Your task to perform on an android device: Clear the shopping cart on amazon.com. Add "dell xps" to the cart on amazon.com, then select checkout. Image 0: 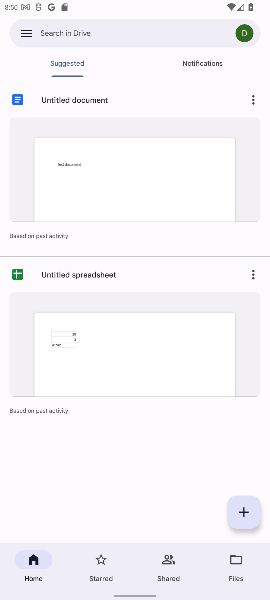
Step 0: press home button
Your task to perform on an android device: Clear the shopping cart on amazon.com. Add "dell xps" to the cart on amazon.com, then select checkout. Image 1: 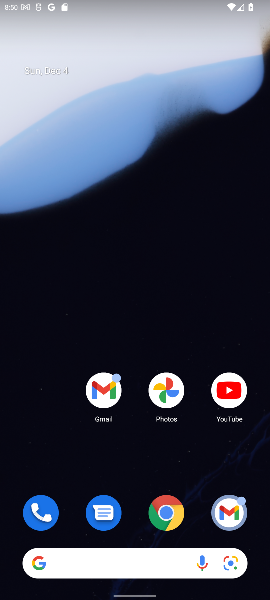
Step 1: click (167, 516)
Your task to perform on an android device: Clear the shopping cart on amazon.com. Add "dell xps" to the cart on amazon.com, then select checkout. Image 2: 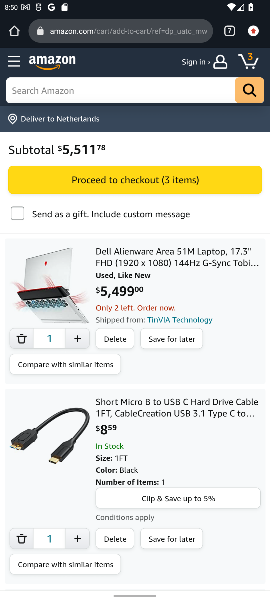
Step 2: click (116, 335)
Your task to perform on an android device: Clear the shopping cart on amazon.com. Add "dell xps" to the cart on amazon.com, then select checkout. Image 3: 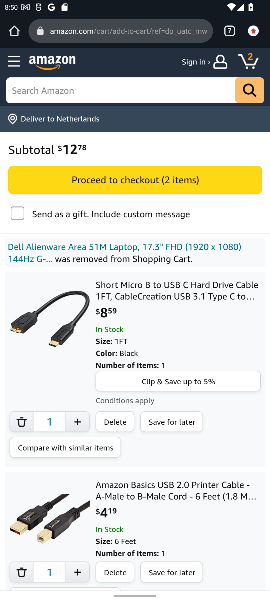
Step 3: click (117, 416)
Your task to perform on an android device: Clear the shopping cart on amazon.com. Add "dell xps" to the cart on amazon.com, then select checkout. Image 4: 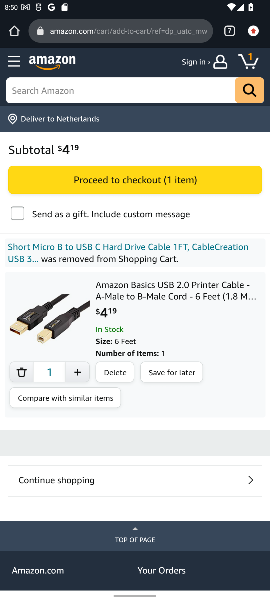
Step 4: click (121, 378)
Your task to perform on an android device: Clear the shopping cart on amazon.com. Add "dell xps" to the cart on amazon.com, then select checkout. Image 5: 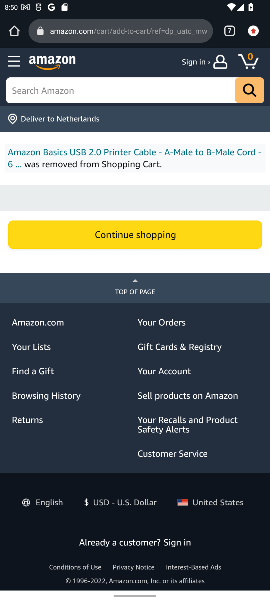
Step 5: click (87, 85)
Your task to perform on an android device: Clear the shopping cart on amazon.com. Add "dell xps" to the cart on amazon.com, then select checkout. Image 6: 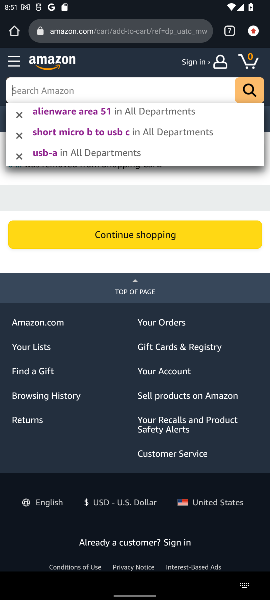
Step 6: type "dell xps"
Your task to perform on an android device: Clear the shopping cart on amazon.com. Add "dell xps" to the cart on amazon.com, then select checkout. Image 7: 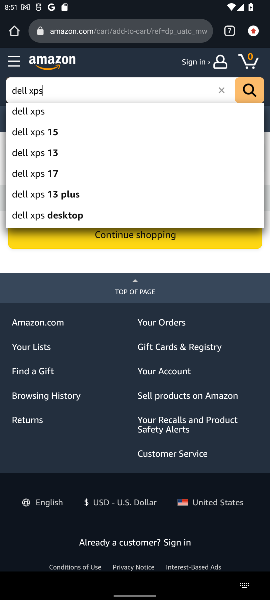
Step 7: click (36, 112)
Your task to perform on an android device: Clear the shopping cart on amazon.com. Add "dell xps" to the cart on amazon.com, then select checkout. Image 8: 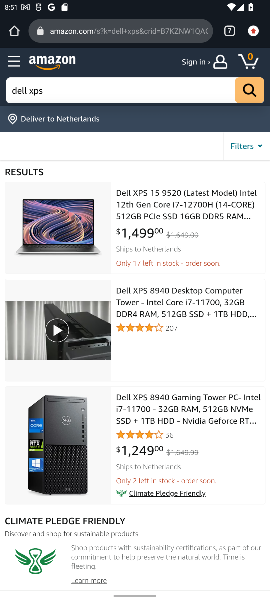
Step 8: click (170, 207)
Your task to perform on an android device: Clear the shopping cart on amazon.com. Add "dell xps" to the cart on amazon.com, then select checkout. Image 9: 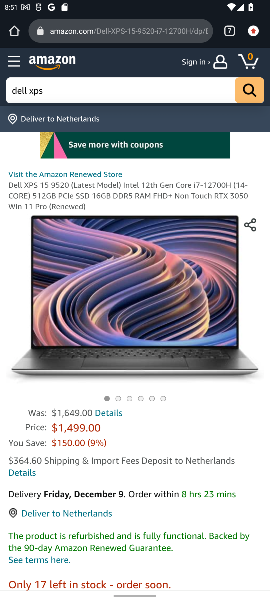
Step 9: drag from (182, 507) to (221, 129)
Your task to perform on an android device: Clear the shopping cart on amazon.com. Add "dell xps" to the cart on amazon.com, then select checkout. Image 10: 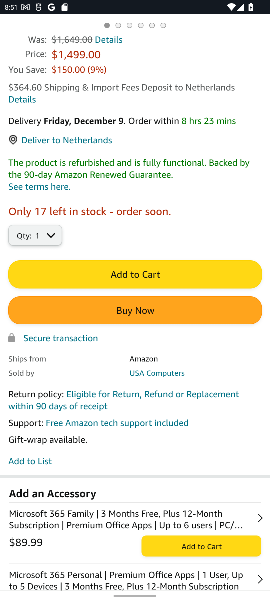
Step 10: click (152, 270)
Your task to perform on an android device: Clear the shopping cart on amazon.com. Add "dell xps" to the cart on amazon.com, then select checkout. Image 11: 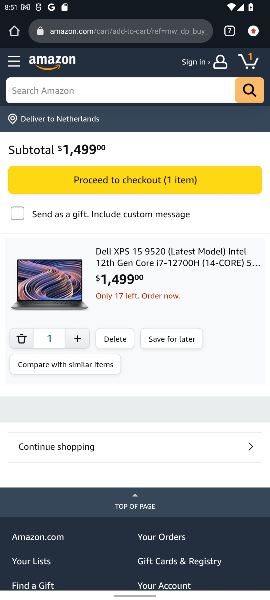
Step 11: click (217, 180)
Your task to perform on an android device: Clear the shopping cart on amazon.com. Add "dell xps" to the cart on amazon.com, then select checkout. Image 12: 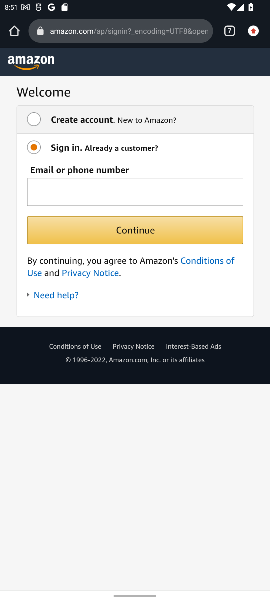
Step 12: task complete